Your task to perform on an android device: Open accessibility settings Image 0: 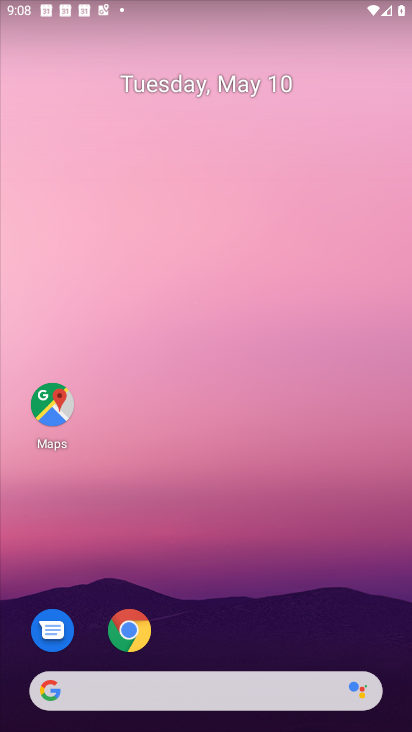
Step 0: drag from (178, 728) to (283, 25)
Your task to perform on an android device: Open accessibility settings Image 1: 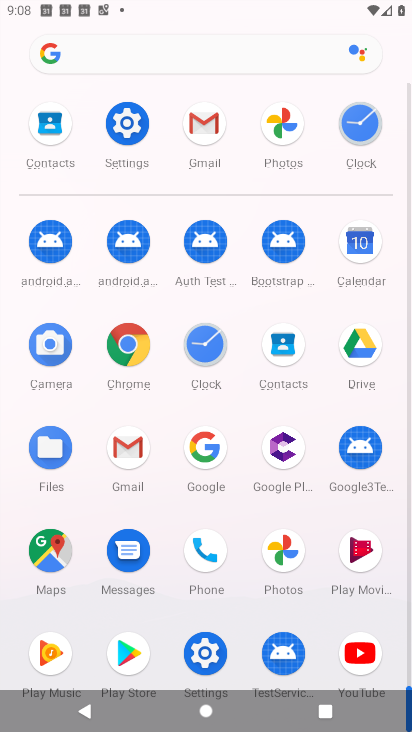
Step 1: click (127, 125)
Your task to perform on an android device: Open accessibility settings Image 2: 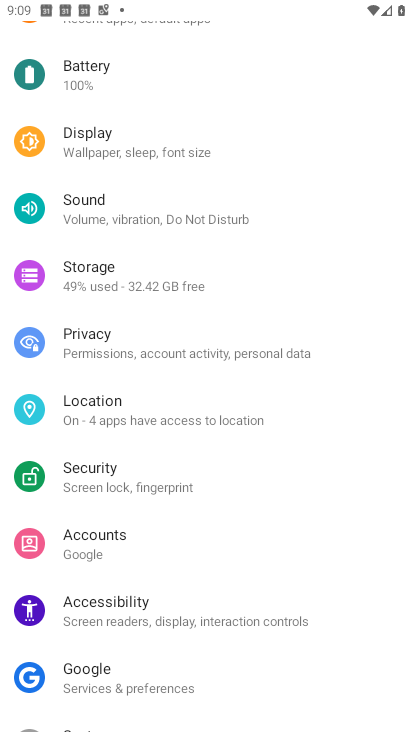
Step 2: click (206, 615)
Your task to perform on an android device: Open accessibility settings Image 3: 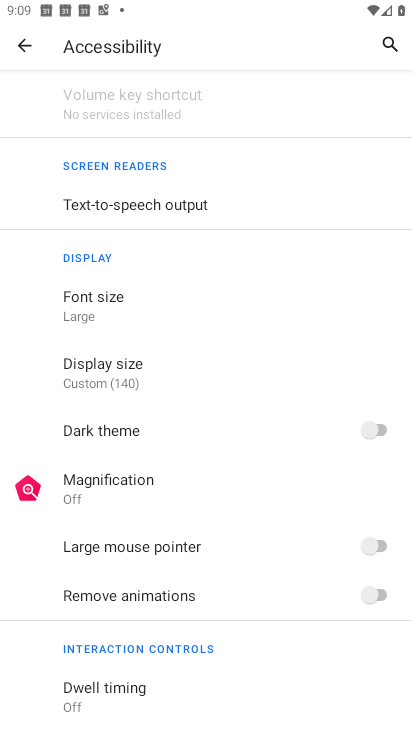
Step 3: task complete